Your task to perform on an android device: Open settings Image 0: 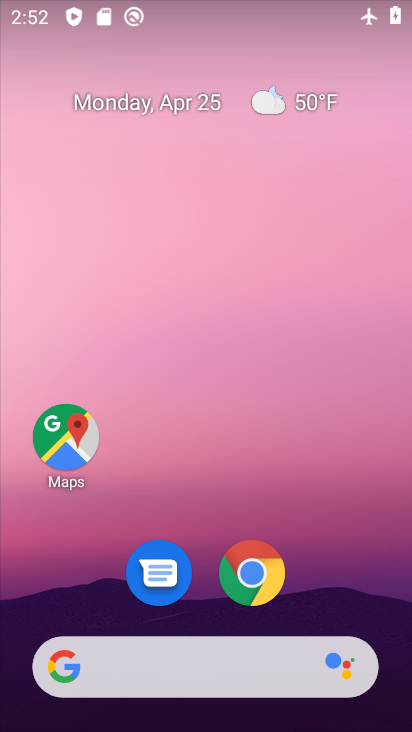
Step 0: drag from (363, 551) to (204, 0)
Your task to perform on an android device: Open settings Image 1: 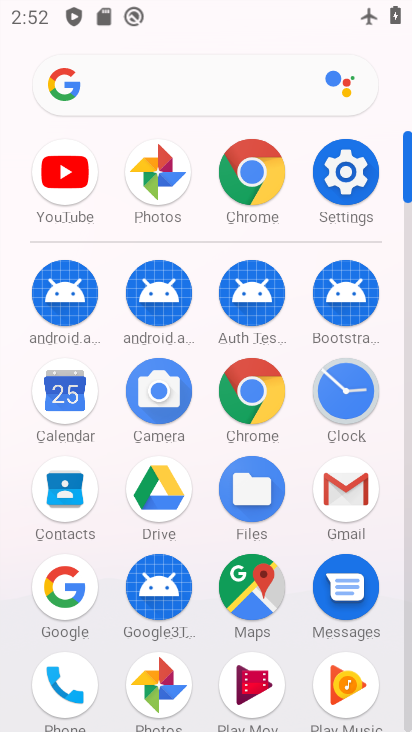
Step 1: click (344, 175)
Your task to perform on an android device: Open settings Image 2: 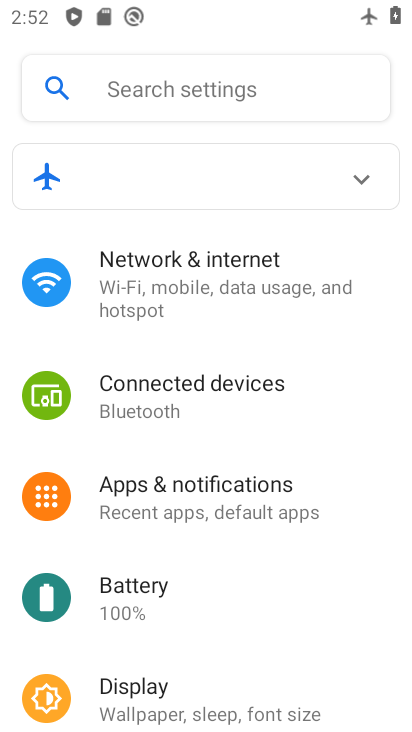
Step 2: task complete